Your task to perform on an android device: Go to sound settings Image 0: 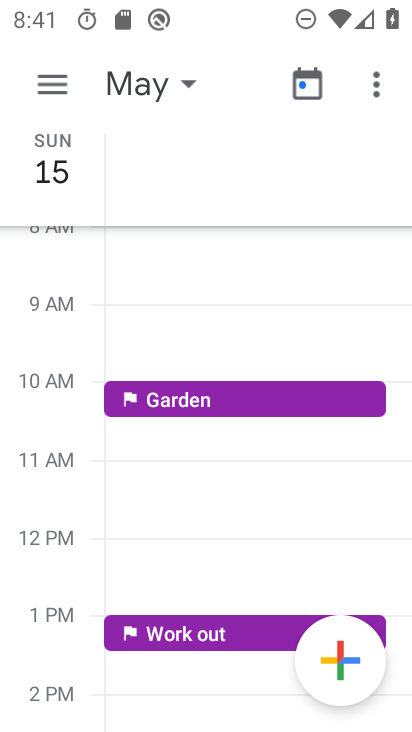
Step 0: press home button
Your task to perform on an android device: Go to sound settings Image 1: 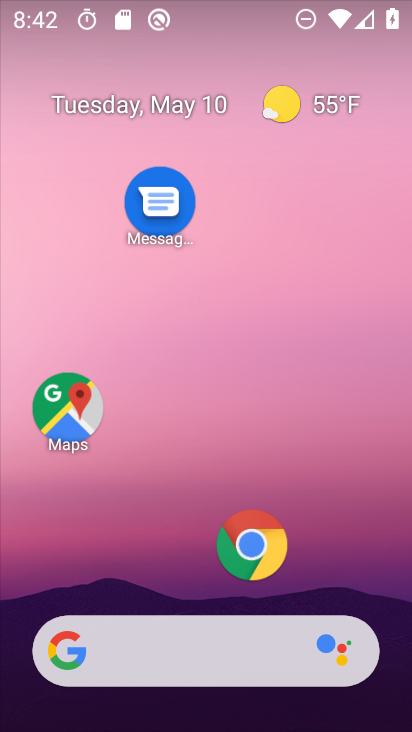
Step 1: drag from (164, 580) to (201, 160)
Your task to perform on an android device: Go to sound settings Image 2: 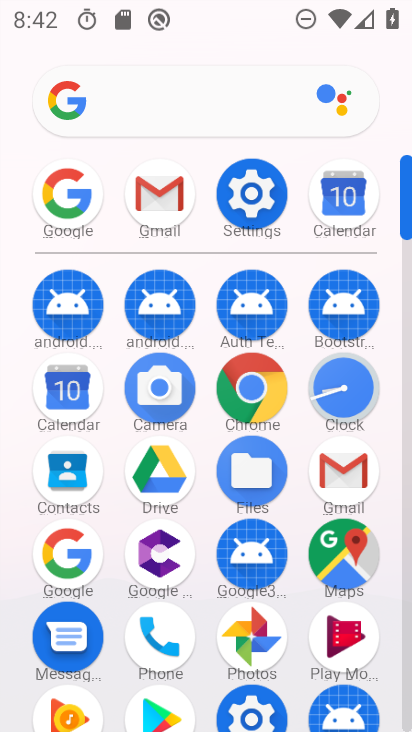
Step 2: click (245, 204)
Your task to perform on an android device: Go to sound settings Image 3: 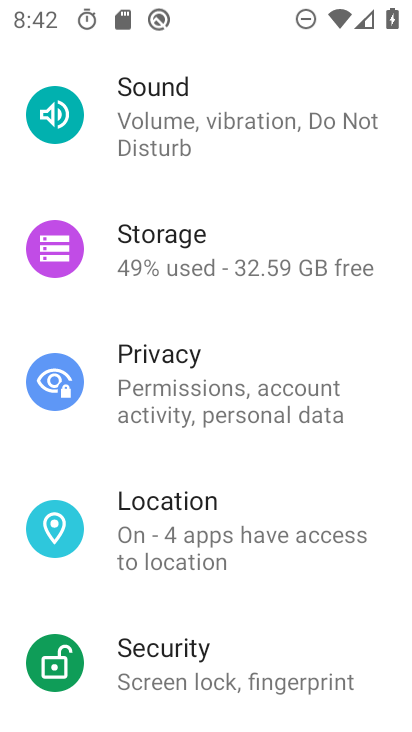
Step 3: click (211, 146)
Your task to perform on an android device: Go to sound settings Image 4: 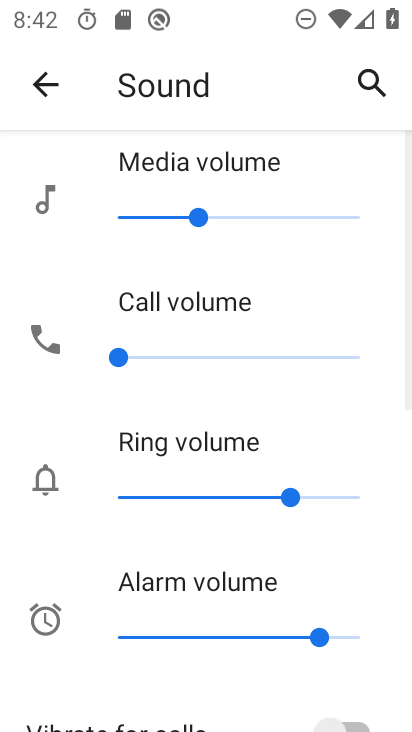
Step 4: task complete